Your task to perform on an android device: open app "Microsoft Outlook" (install if not already installed), go to login, and select forgot password Image 0: 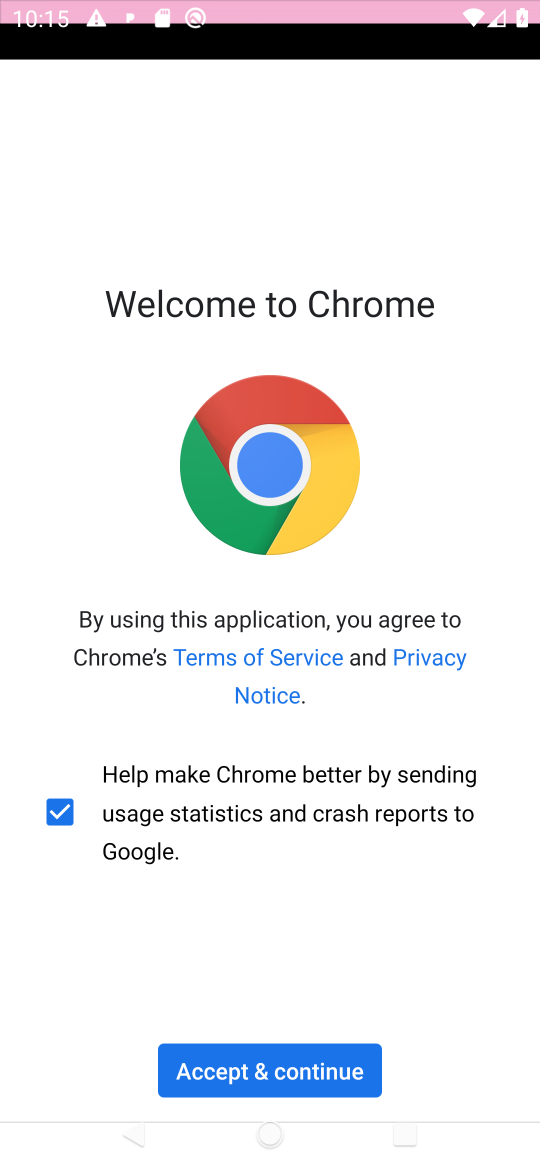
Step 0: press home button
Your task to perform on an android device: open app "Microsoft Outlook" (install if not already installed), go to login, and select forgot password Image 1: 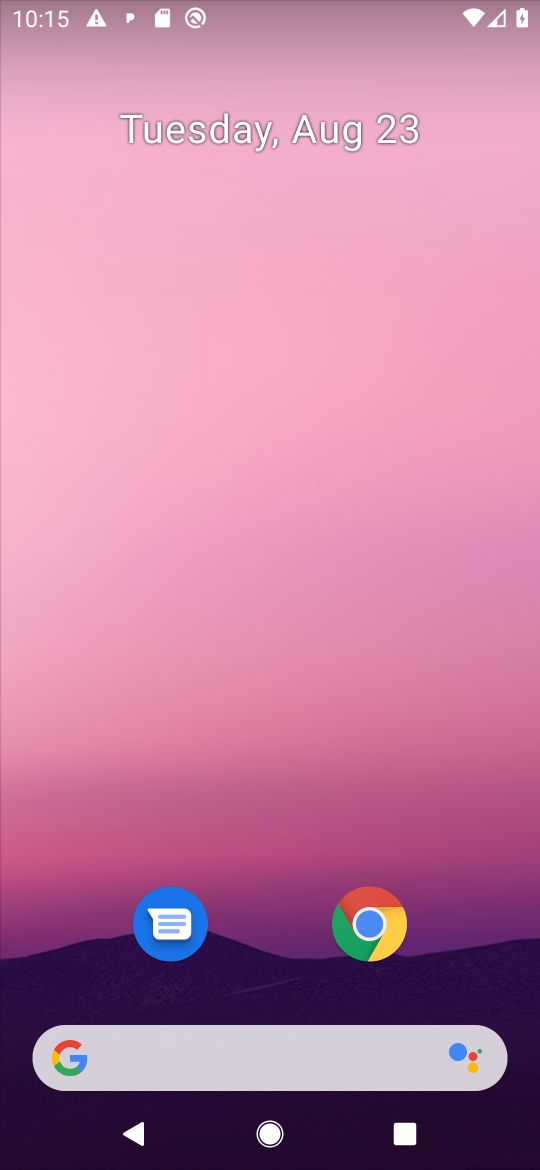
Step 1: drag from (484, 928) to (475, 85)
Your task to perform on an android device: open app "Microsoft Outlook" (install if not already installed), go to login, and select forgot password Image 2: 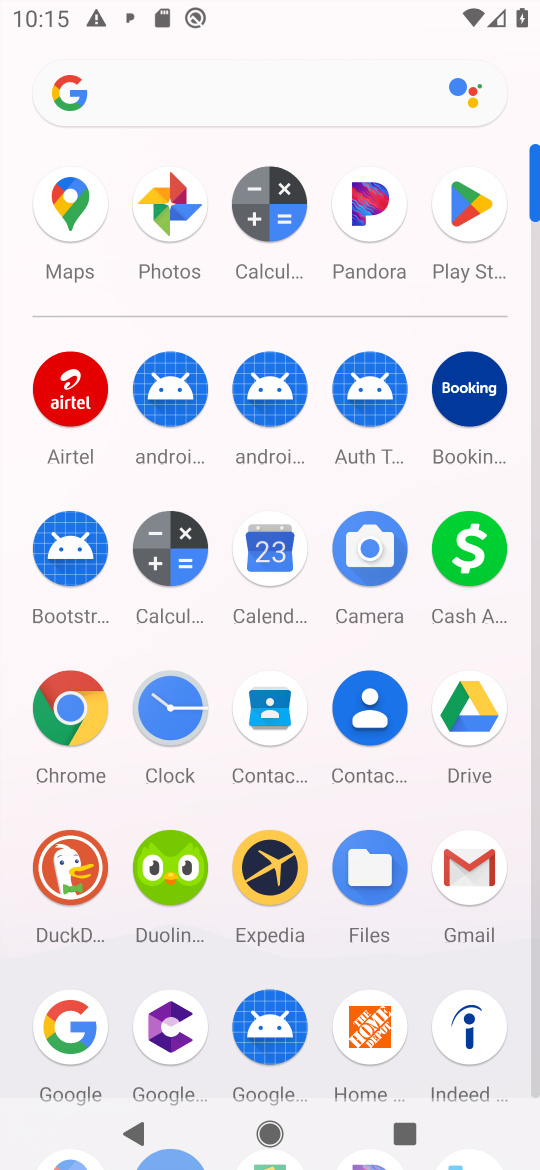
Step 2: click (471, 209)
Your task to perform on an android device: open app "Microsoft Outlook" (install if not already installed), go to login, and select forgot password Image 3: 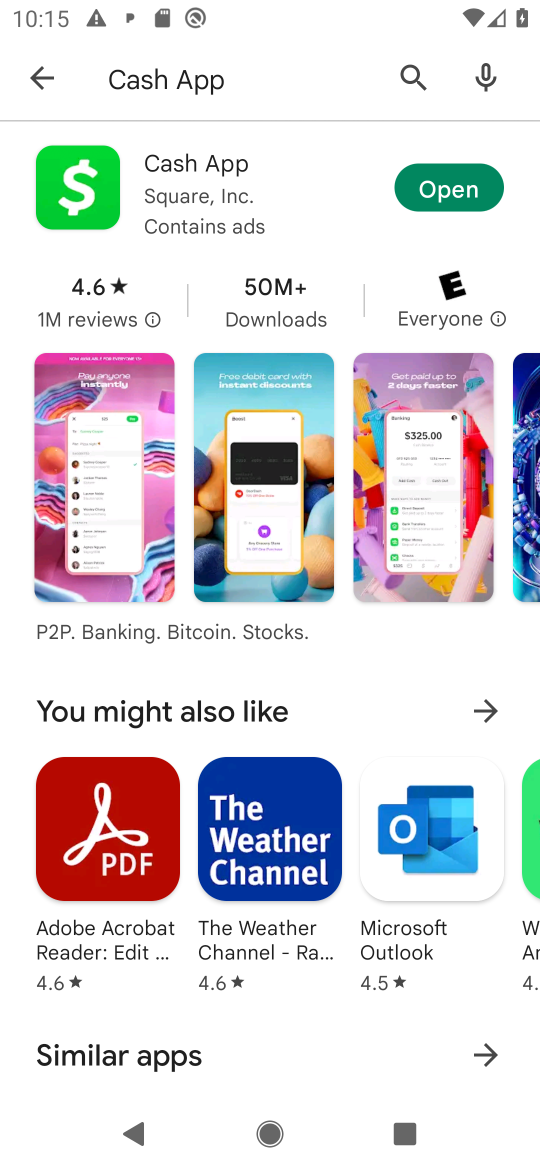
Step 3: press back button
Your task to perform on an android device: open app "Microsoft Outlook" (install if not already installed), go to login, and select forgot password Image 4: 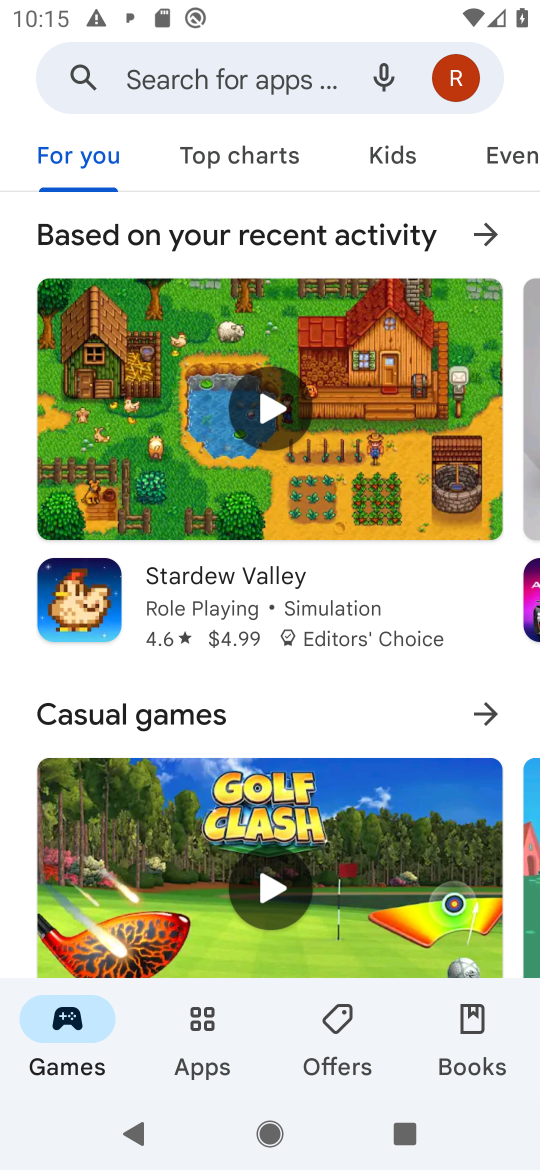
Step 4: click (235, 71)
Your task to perform on an android device: open app "Microsoft Outlook" (install if not already installed), go to login, and select forgot password Image 5: 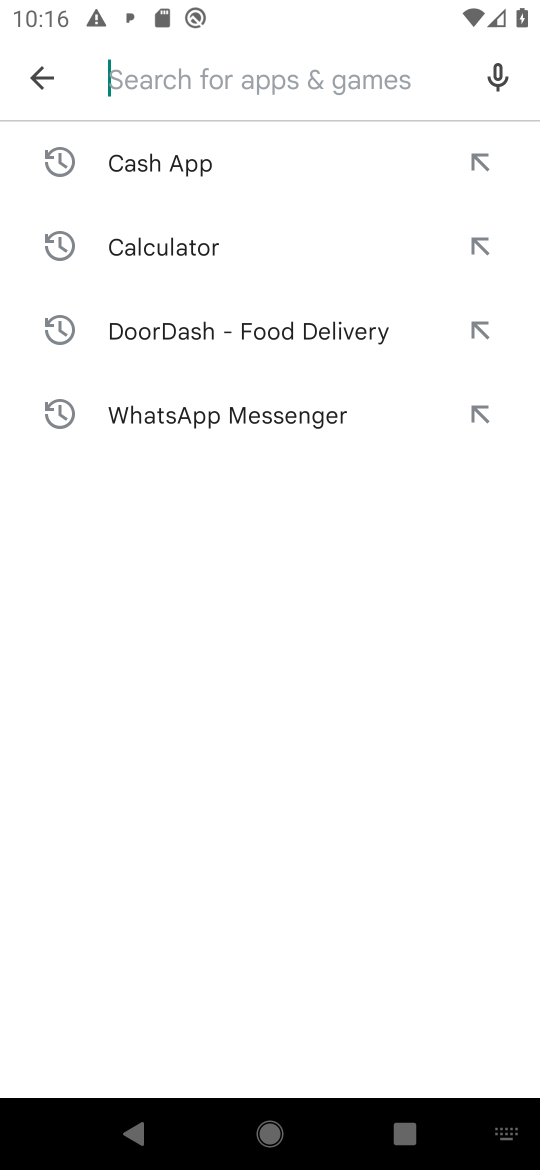
Step 5: type "Microsoft Outlook"
Your task to perform on an android device: open app "Microsoft Outlook" (install if not already installed), go to login, and select forgot password Image 6: 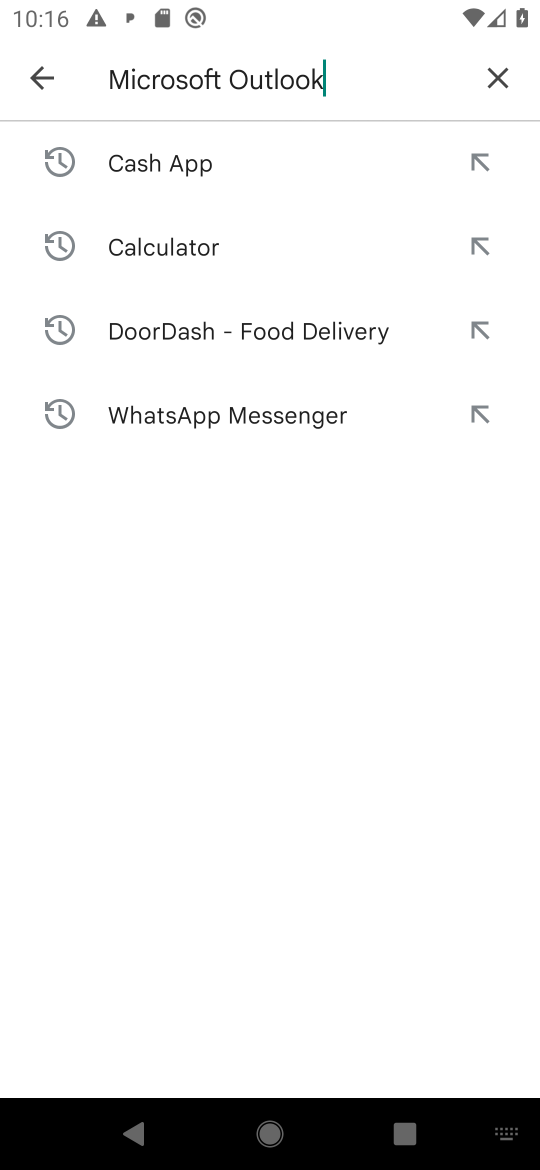
Step 6: press enter
Your task to perform on an android device: open app "Microsoft Outlook" (install if not already installed), go to login, and select forgot password Image 7: 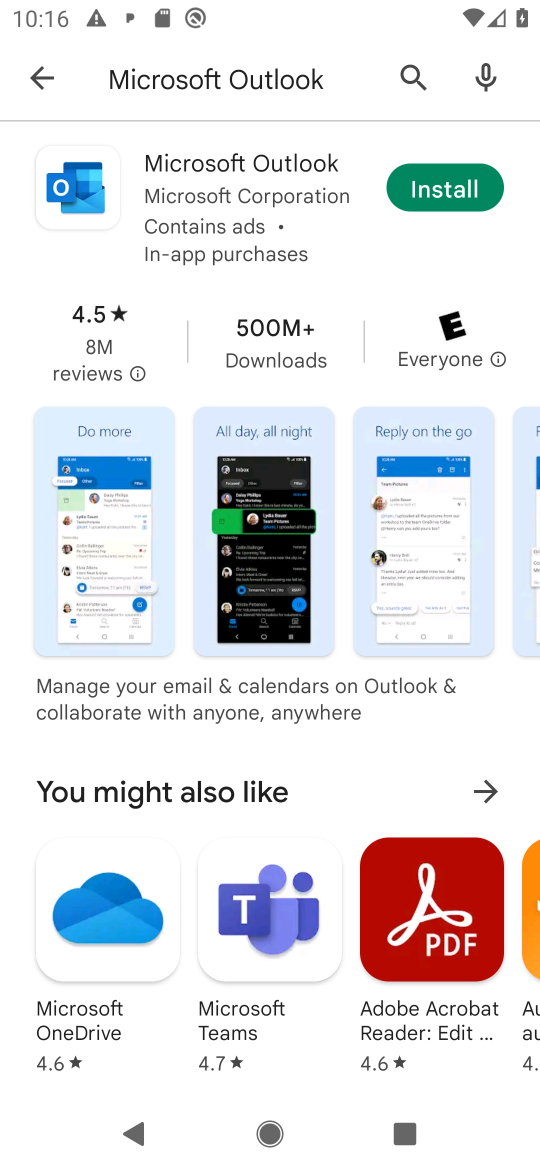
Step 7: click (448, 196)
Your task to perform on an android device: open app "Microsoft Outlook" (install if not already installed), go to login, and select forgot password Image 8: 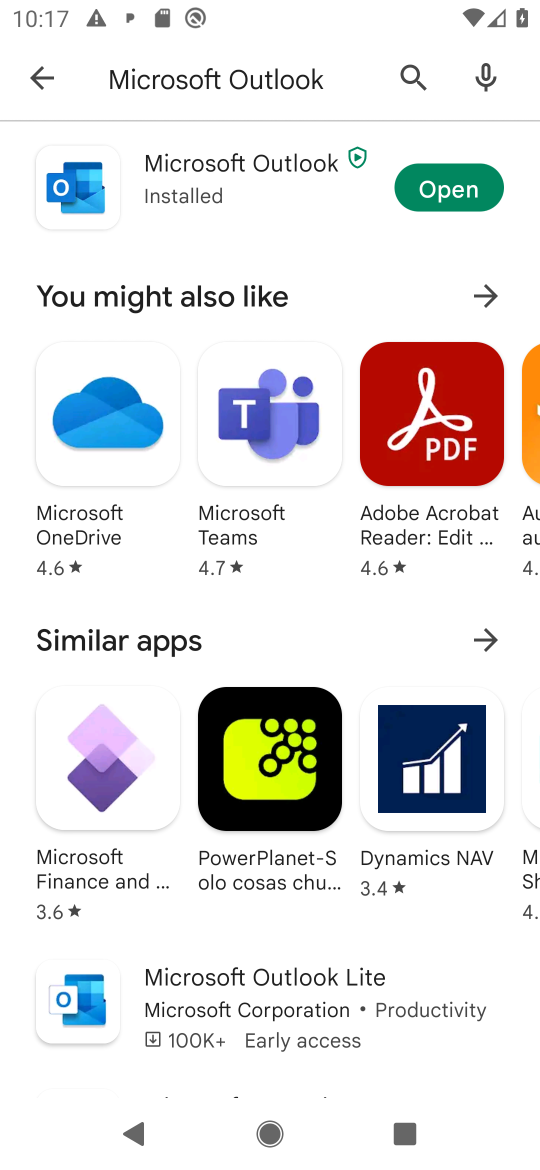
Step 8: click (448, 184)
Your task to perform on an android device: open app "Microsoft Outlook" (install if not already installed), go to login, and select forgot password Image 9: 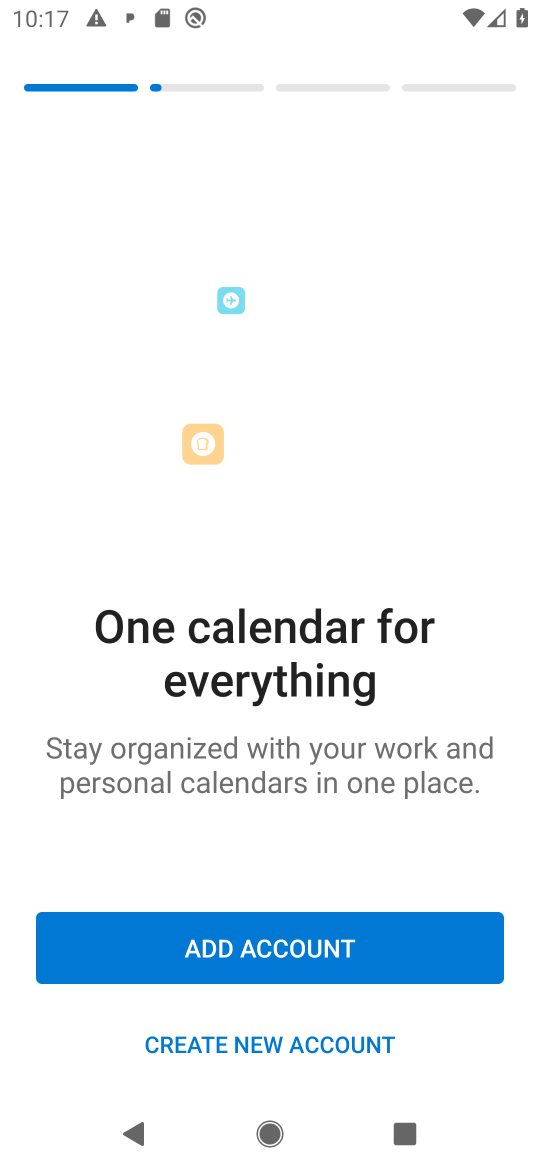
Step 9: click (330, 956)
Your task to perform on an android device: open app "Microsoft Outlook" (install if not already installed), go to login, and select forgot password Image 10: 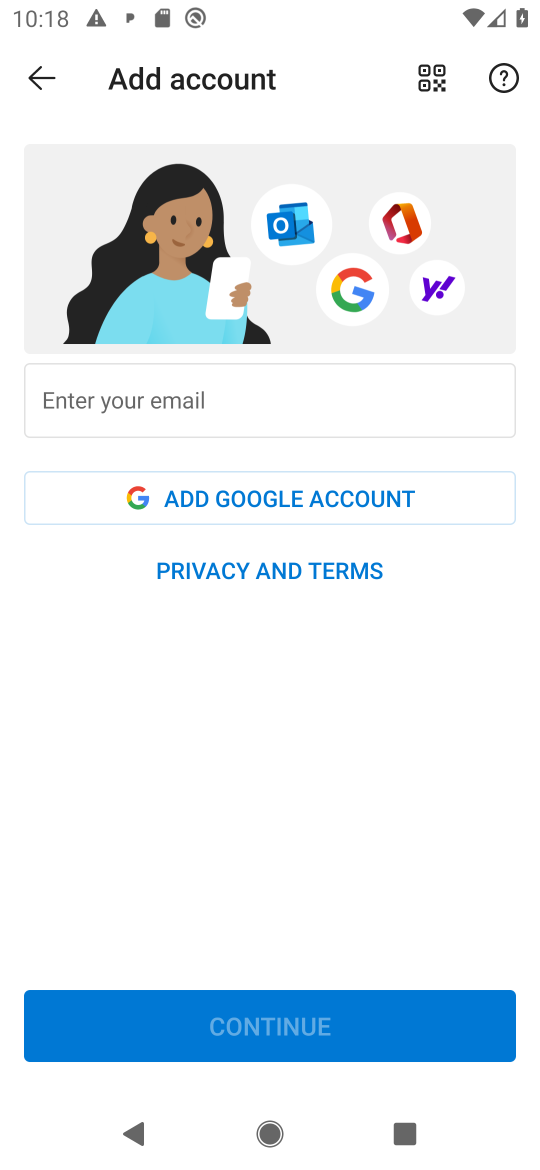
Step 10: click (206, 411)
Your task to perform on an android device: open app "Microsoft Outlook" (install if not already installed), go to login, and select forgot password Image 11: 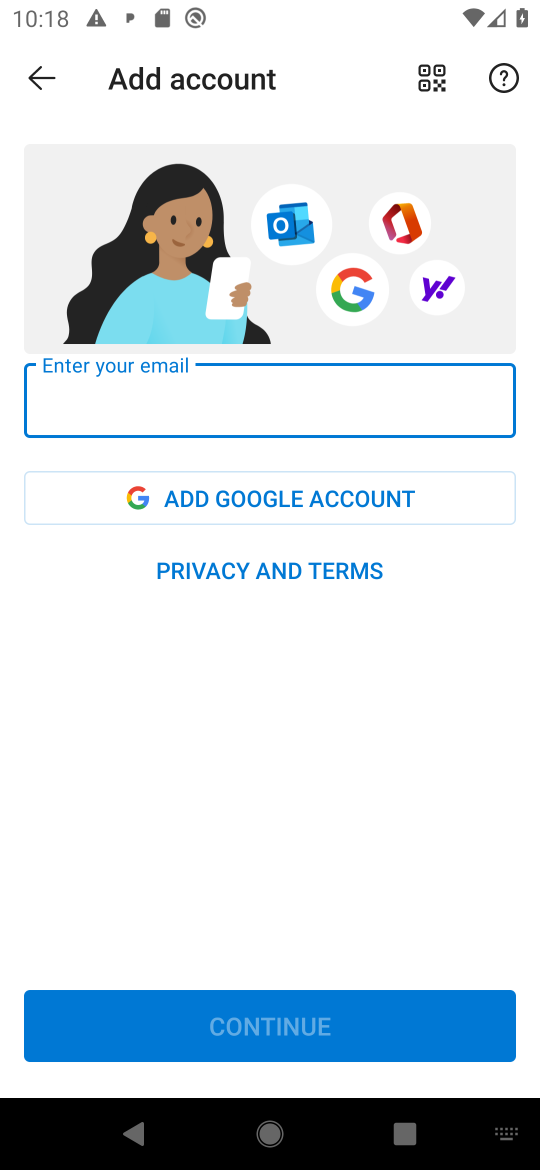
Step 11: task complete